Your task to perform on an android device: turn on the 24-hour format for clock Image 0: 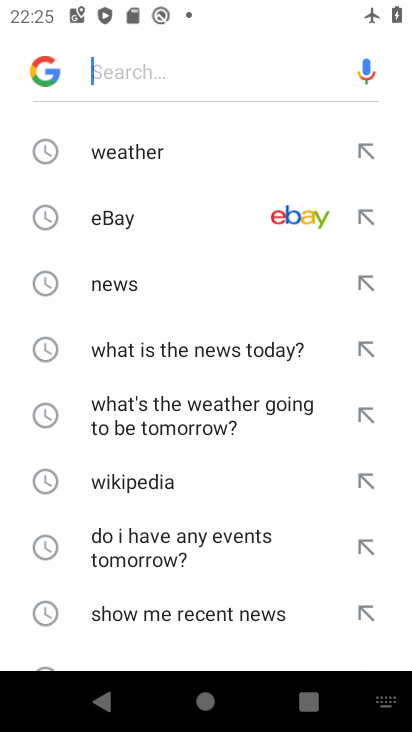
Step 0: press home button
Your task to perform on an android device: turn on the 24-hour format for clock Image 1: 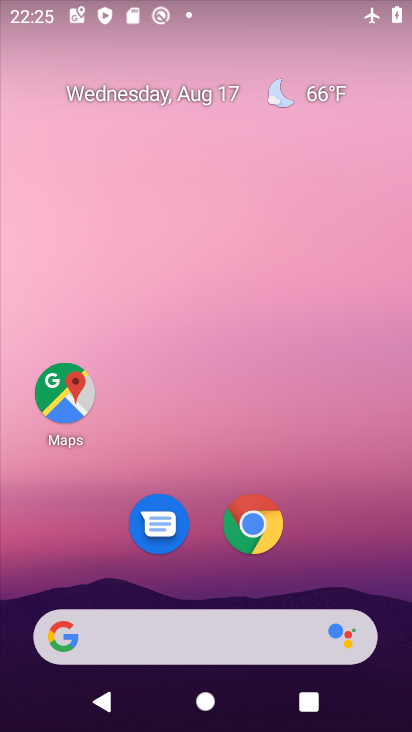
Step 1: drag from (309, 484) to (330, 35)
Your task to perform on an android device: turn on the 24-hour format for clock Image 2: 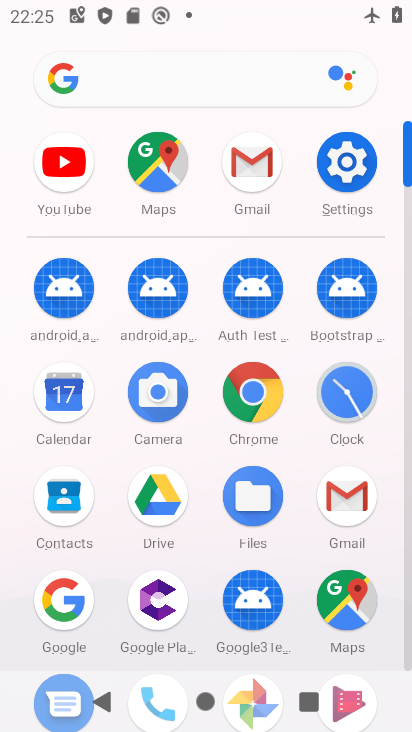
Step 2: click (343, 380)
Your task to perform on an android device: turn on the 24-hour format for clock Image 3: 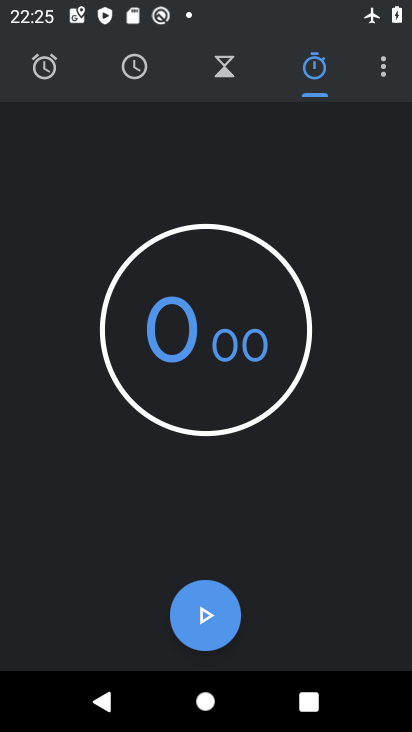
Step 3: click (383, 82)
Your task to perform on an android device: turn on the 24-hour format for clock Image 4: 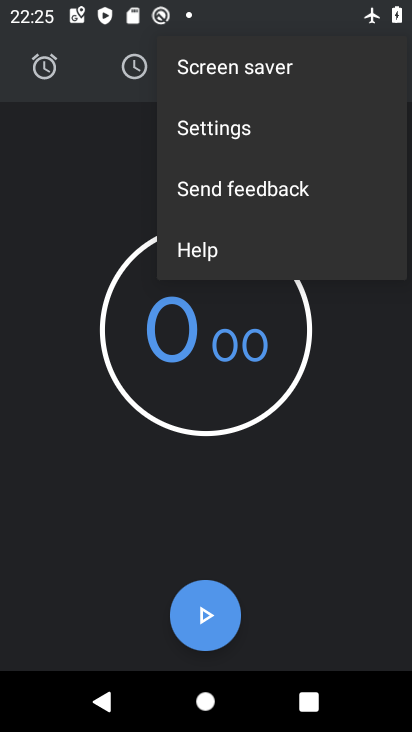
Step 4: click (283, 131)
Your task to perform on an android device: turn on the 24-hour format for clock Image 5: 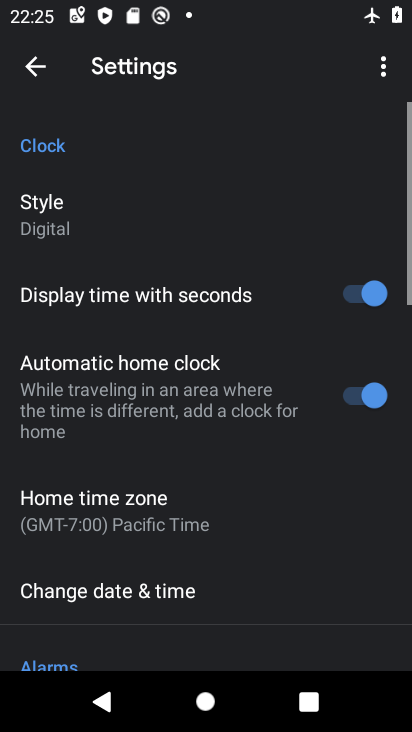
Step 5: click (255, 597)
Your task to perform on an android device: turn on the 24-hour format for clock Image 6: 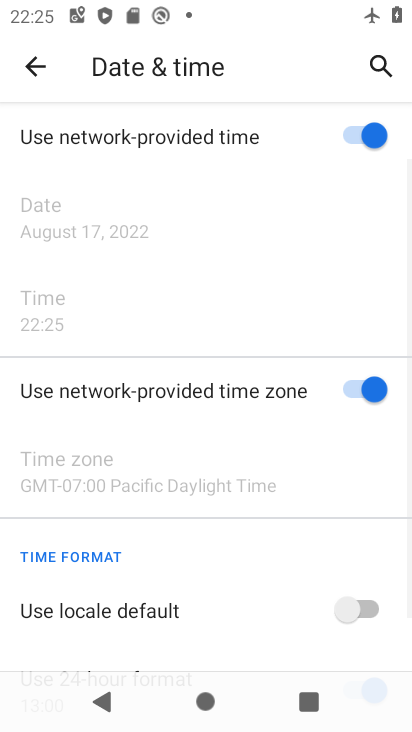
Step 6: task complete